Your task to perform on an android device: clear all cookies in the chrome app Image 0: 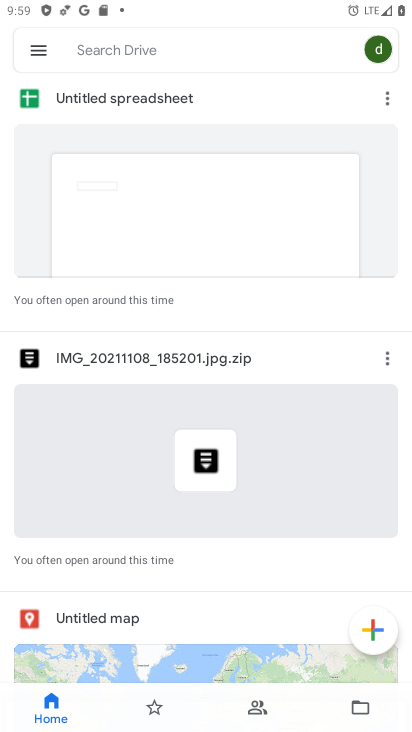
Step 0: press home button
Your task to perform on an android device: clear all cookies in the chrome app Image 1: 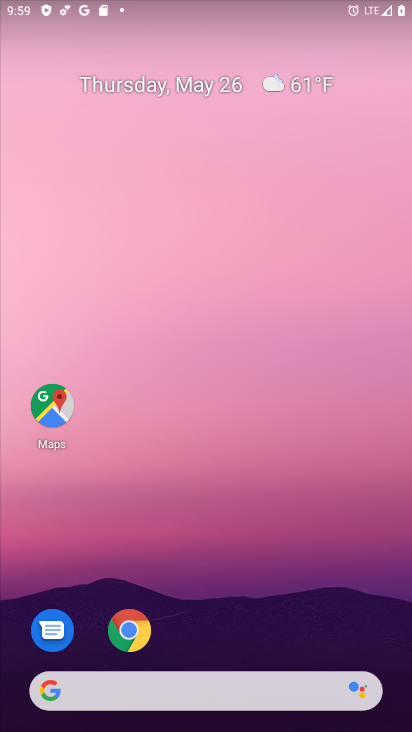
Step 1: click (132, 642)
Your task to perform on an android device: clear all cookies in the chrome app Image 2: 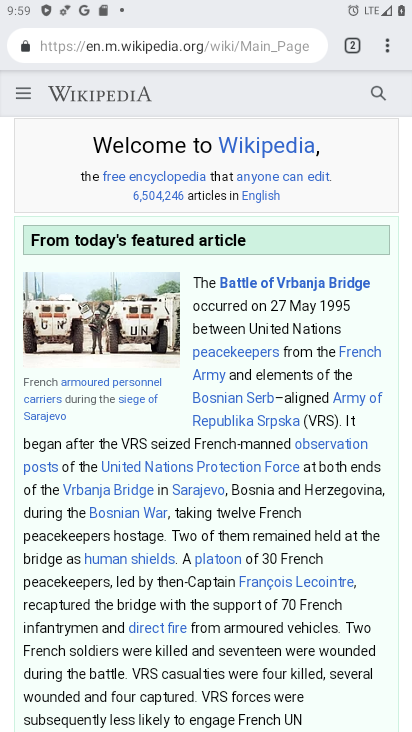
Step 2: click (384, 49)
Your task to perform on an android device: clear all cookies in the chrome app Image 3: 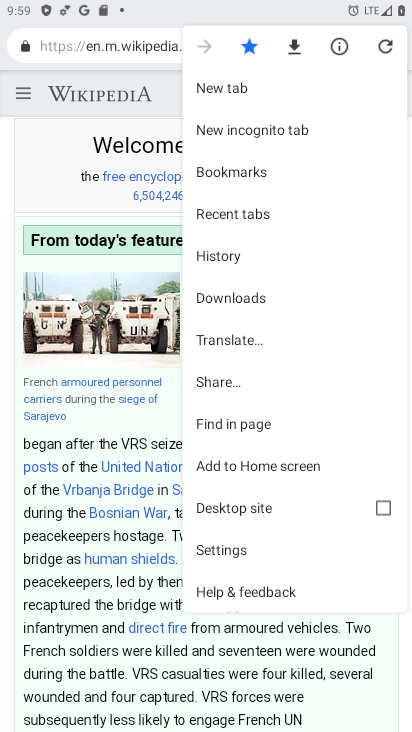
Step 3: click (222, 265)
Your task to perform on an android device: clear all cookies in the chrome app Image 4: 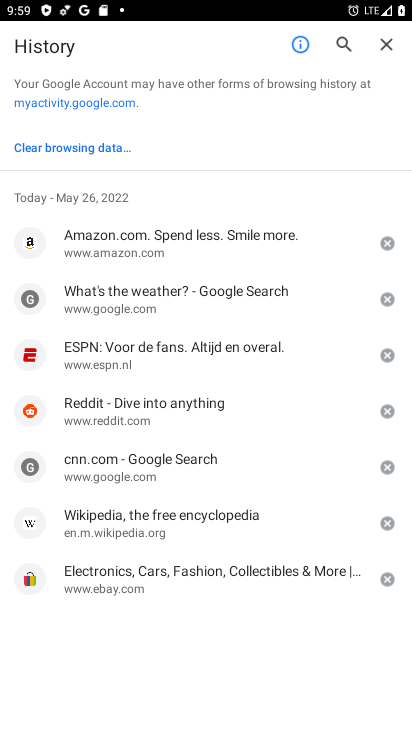
Step 4: click (96, 149)
Your task to perform on an android device: clear all cookies in the chrome app Image 5: 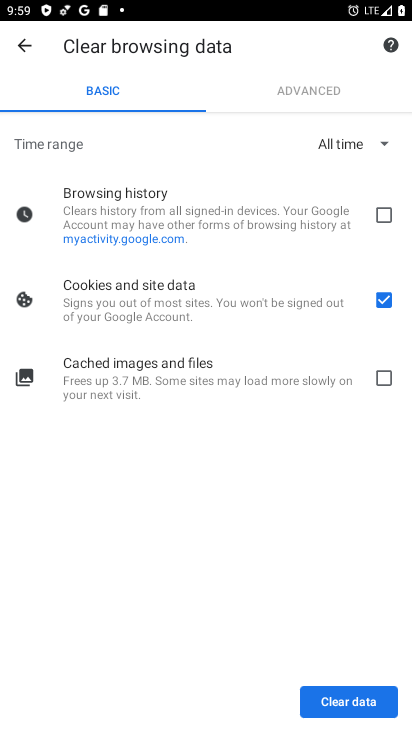
Step 5: click (385, 386)
Your task to perform on an android device: clear all cookies in the chrome app Image 6: 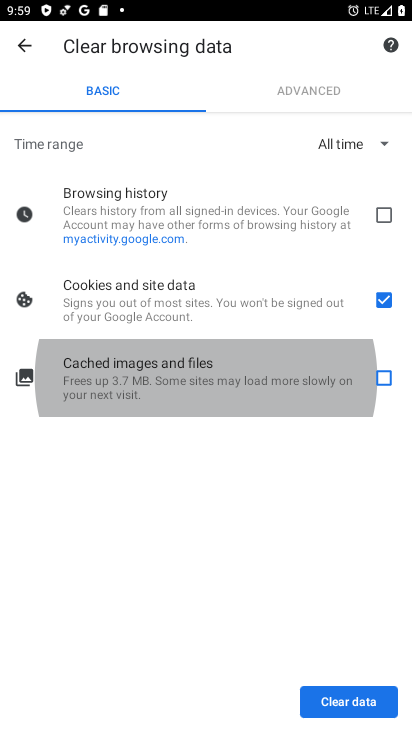
Step 6: click (385, 386)
Your task to perform on an android device: clear all cookies in the chrome app Image 7: 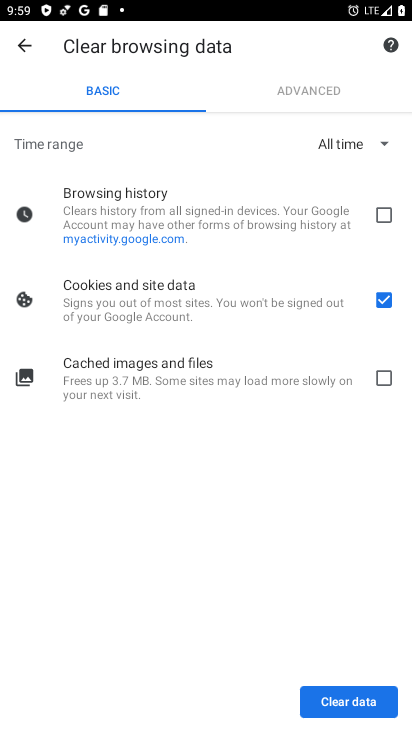
Step 7: click (382, 208)
Your task to perform on an android device: clear all cookies in the chrome app Image 8: 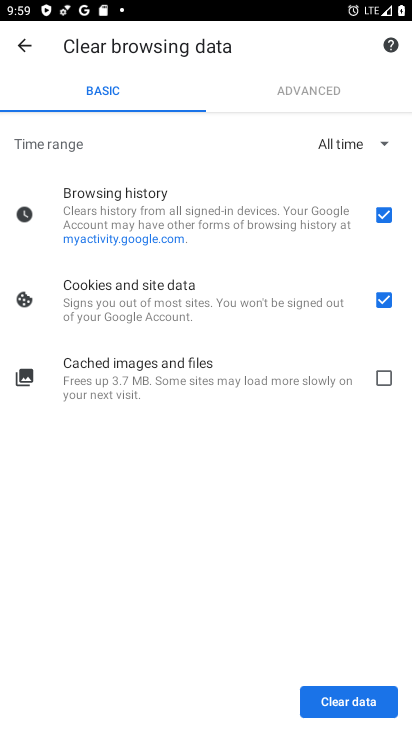
Step 8: click (384, 224)
Your task to perform on an android device: clear all cookies in the chrome app Image 9: 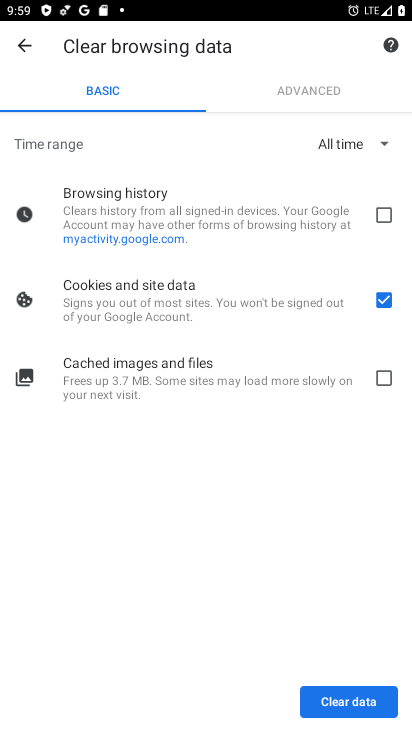
Step 9: click (338, 694)
Your task to perform on an android device: clear all cookies in the chrome app Image 10: 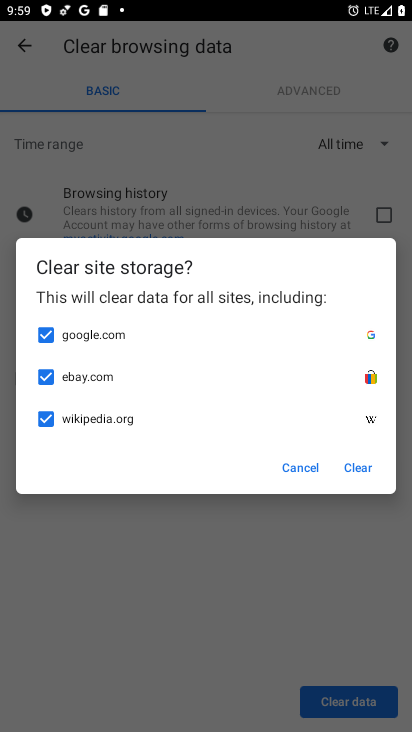
Step 10: click (372, 460)
Your task to perform on an android device: clear all cookies in the chrome app Image 11: 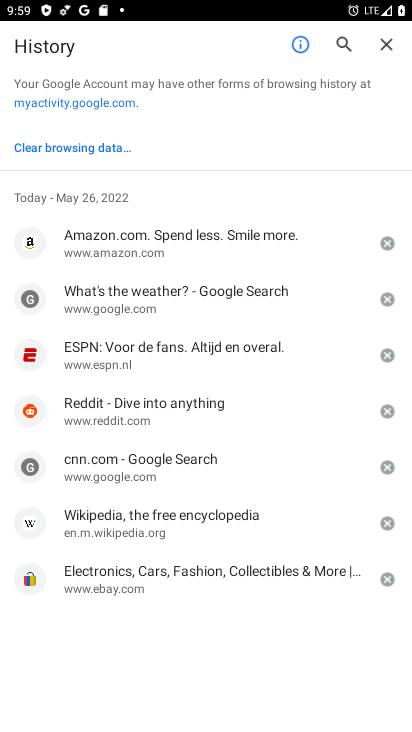
Step 11: task complete